Your task to perform on an android device: What's on my calendar tomorrow? Image 0: 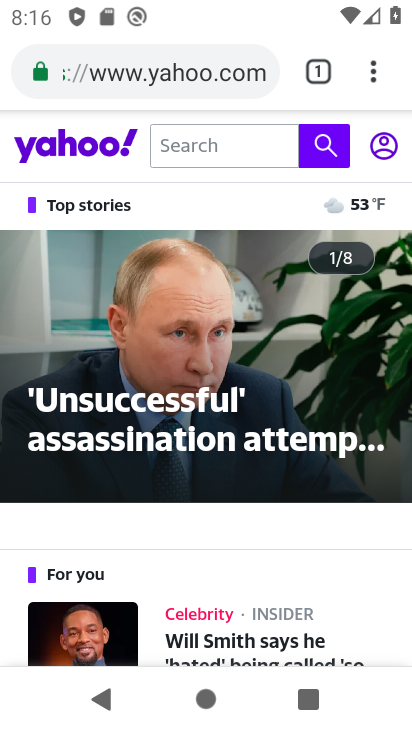
Step 0: press home button
Your task to perform on an android device: What's on my calendar tomorrow? Image 1: 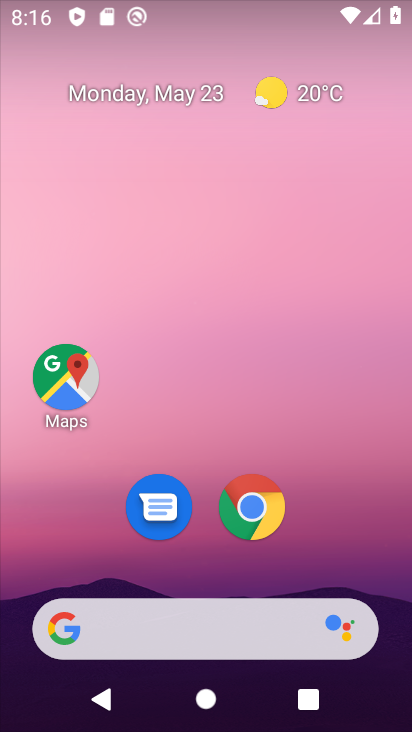
Step 1: drag from (358, 584) to (330, 4)
Your task to perform on an android device: What's on my calendar tomorrow? Image 2: 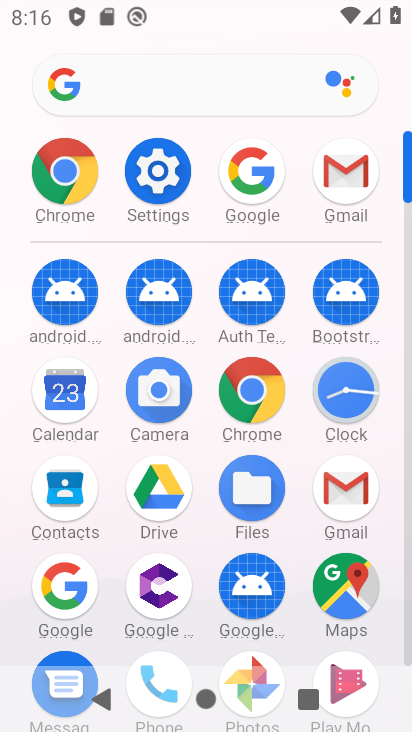
Step 2: click (63, 393)
Your task to perform on an android device: What's on my calendar tomorrow? Image 3: 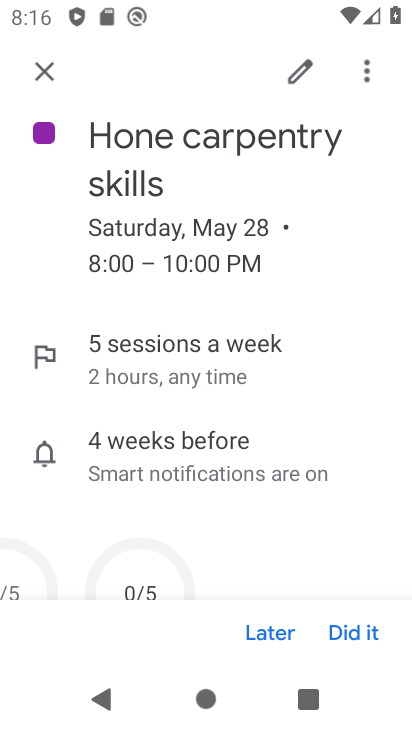
Step 3: click (44, 75)
Your task to perform on an android device: What's on my calendar tomorrow? Image 4: 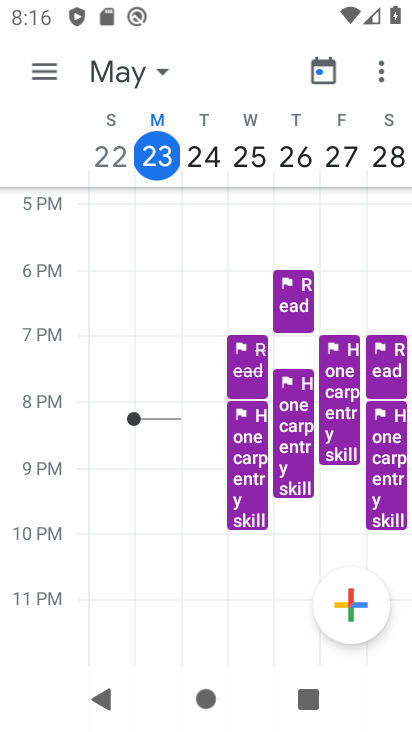
Step 4: click (41, 64)
Your task to perform on an android device: What's on my calendar tomorrow? Image 5: 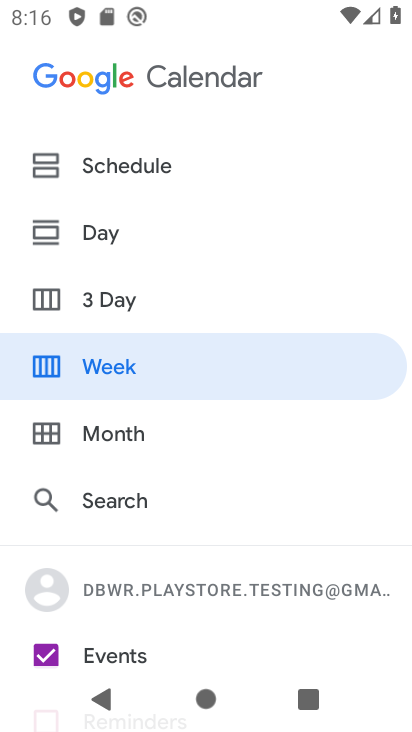
Step 5: click (75, 158)
Your task to perform on an android device: What's on my calendar tomorrow? Image 6: 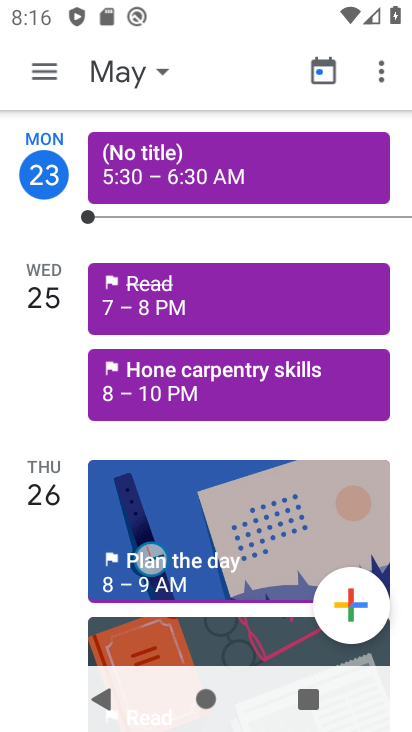
Step 6: click (161, 71)
Your task to perform on an android device: What's on my calendar tomorrow? Image 7: 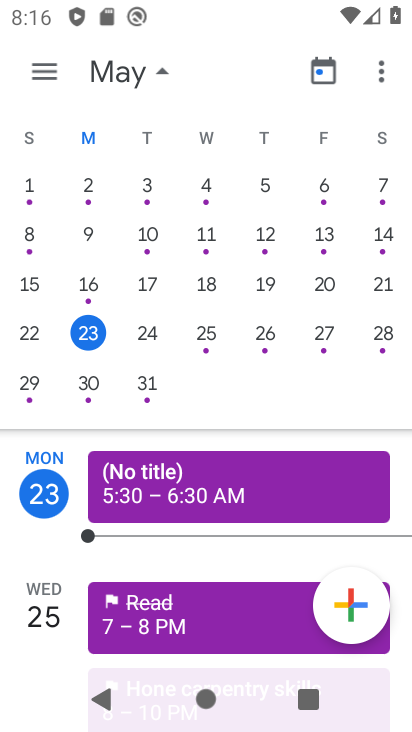
Step 7: click (149, 340)
Your task to perform on an android device: What's on my calendar tomorrow? Image 8: 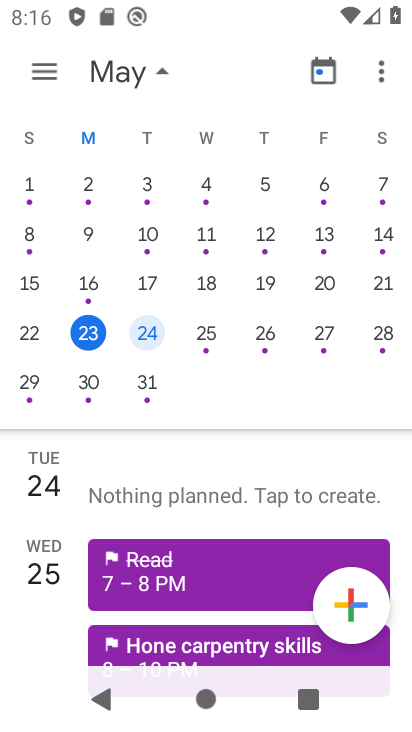
Step 8: click (162, 494)
Your task to perform on an android device: What's on my calendar tomorrow? Image 9: 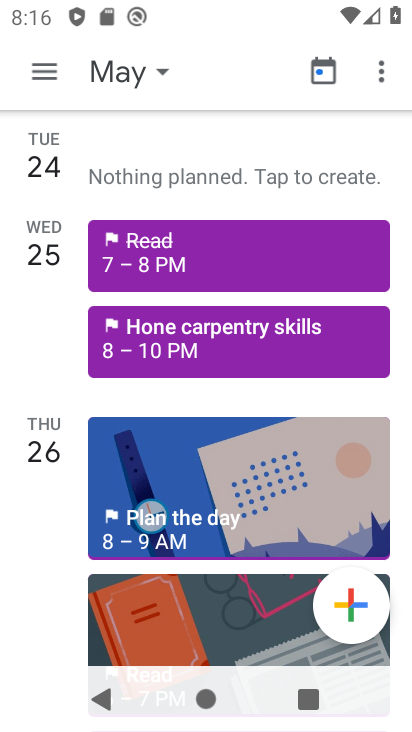
Step 9: click (178, 182)
Your task to perform on an android device: What's on my calendar tomorrow? Image 10: 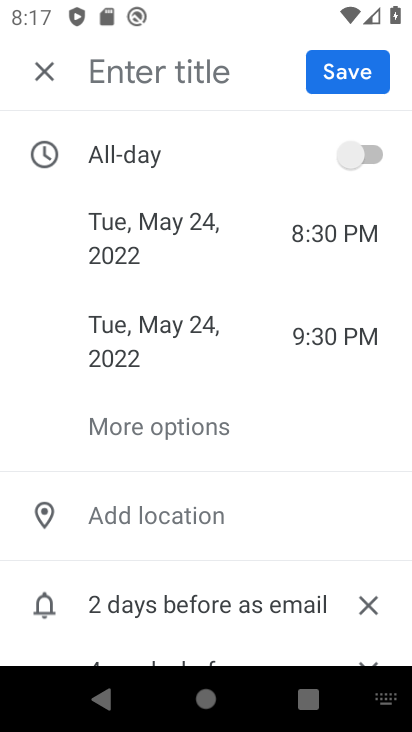
Step 10: task complete